Your task to perform on an android device: Open accessibility settings Image 0: 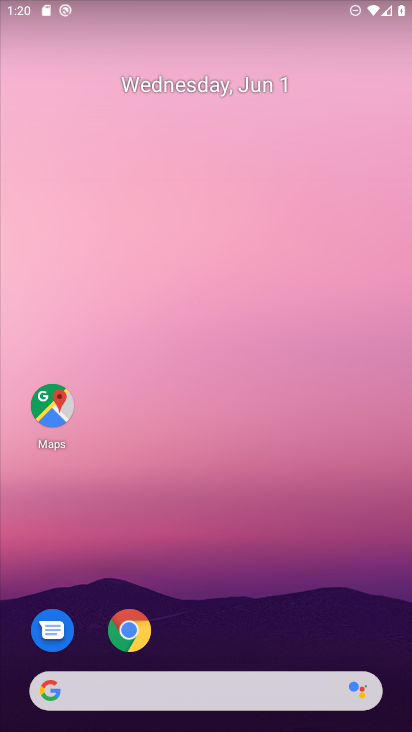
Step 0: drag from (287, 630) to (196, 93)
Your task to perform on an android device: Open accessibility settings Image 1: 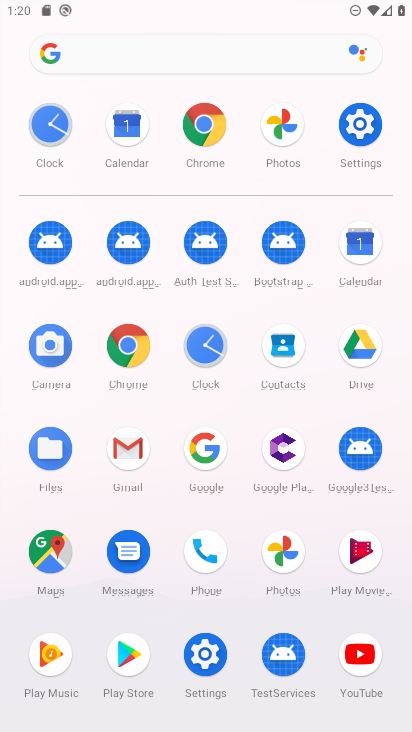
Step 1: click (362, 120)
Your task to perform on an android device: Open accessibility settings Image 2: 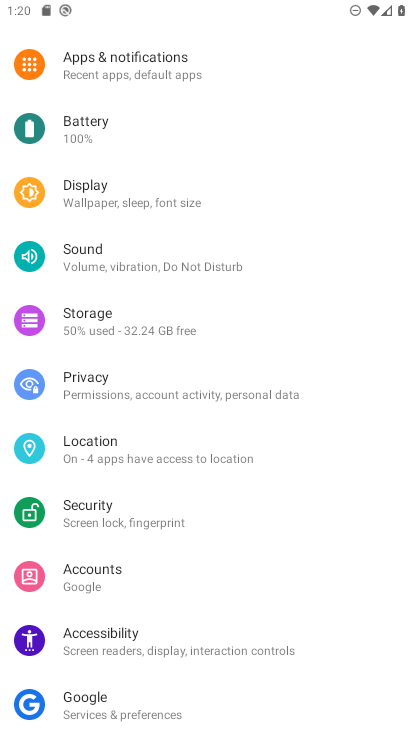
Step 2: click (98, 633)
Your task to perform on an android device: Open accessibility settings Image 3: 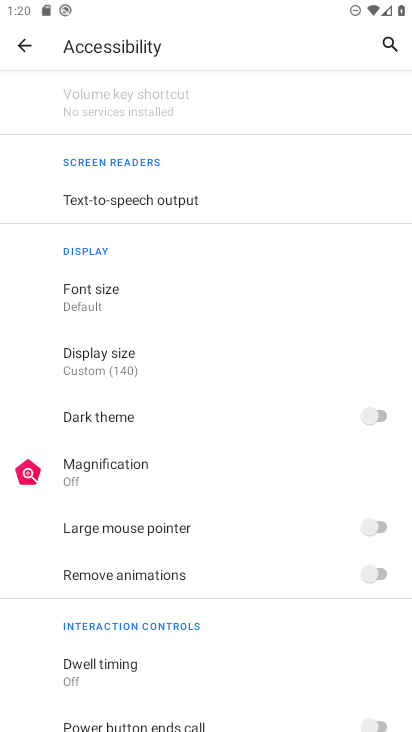
Step 3: task complete